Your task to perform on an android device: Open Google Chrome and click the shortcut for Amazon.com Image 0: 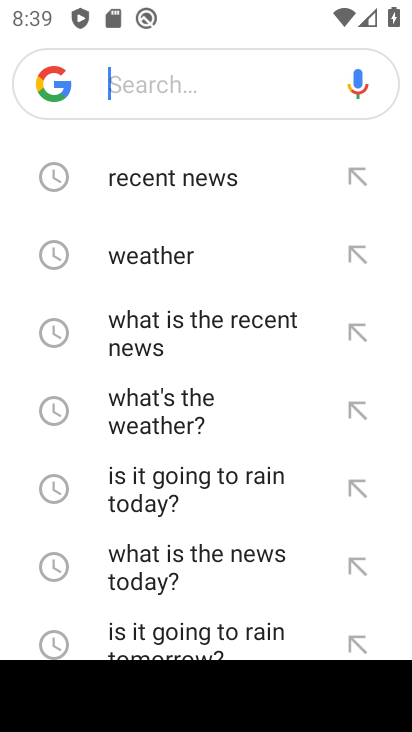
Step 0: press home button
Your task to perform on an android device: Open Google Chrome and click the shortcut for Amazon.com Image 1: 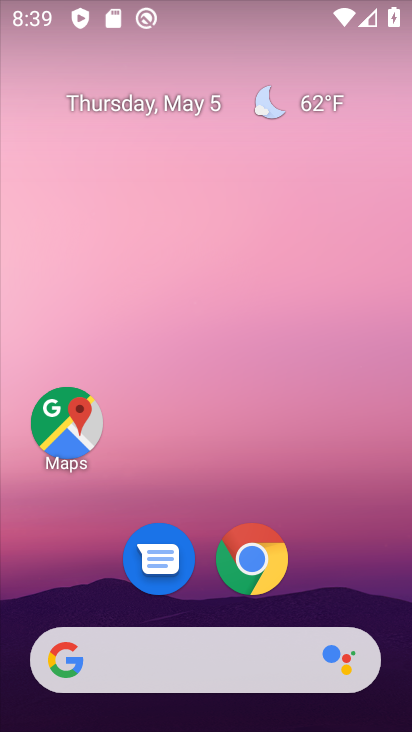
Step 1: click (255, 558)
Your task to perform on an android device: Open Google Chrome and click the shortcut for Amazon.com Image 2: 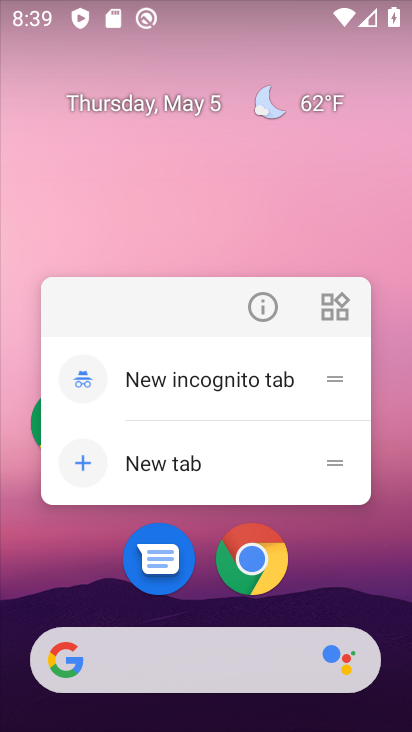
Step 2: click (253, 554)
Your task to perform on an android device: Open Google Chrome and click the shortcut for Amazon.com Image 3: 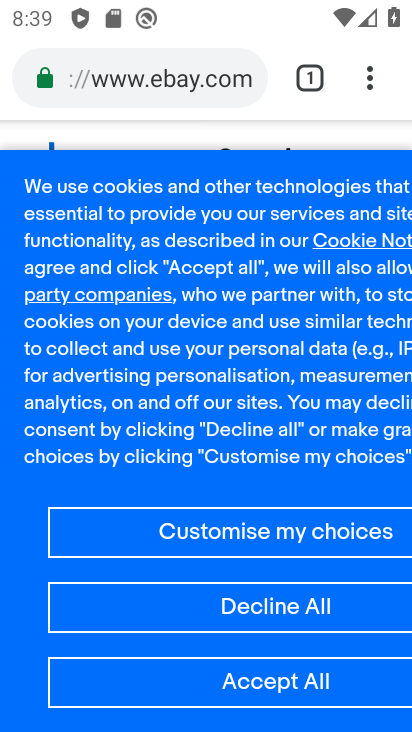
Step 3: click (310, 79)
Your task to perform on an android device: Open Google Chrome and click the shortcut for Amazon.com Image 4: 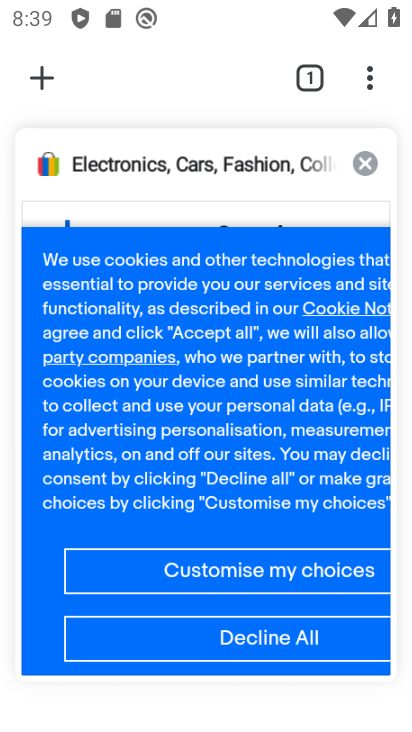
Step 4: click (51, 79)
Your task to perform on an android device: Open Google Chrome and click the shortcut for Amazon.com Image 5: 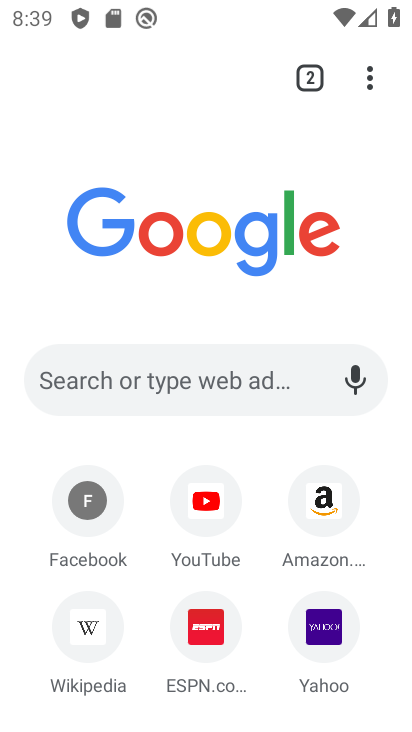
Step 5: click (324, 507)
Your task to perform on an android device: Open Google Chrome and click the shortcut for Amazon.com Image 6: 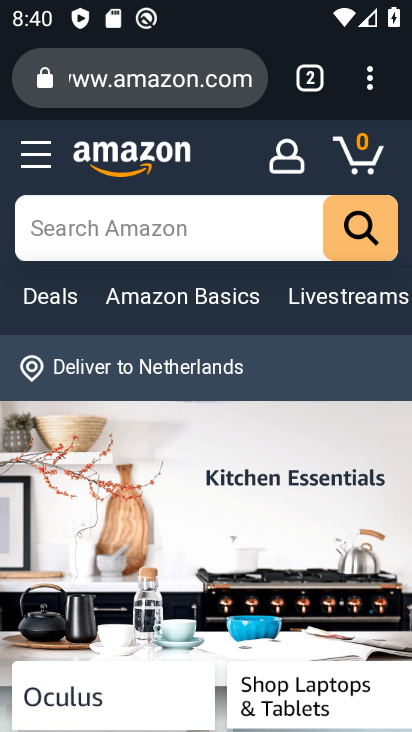
Step 6: task complete